Your task to perform on an android device: Go to eBay Image 0: 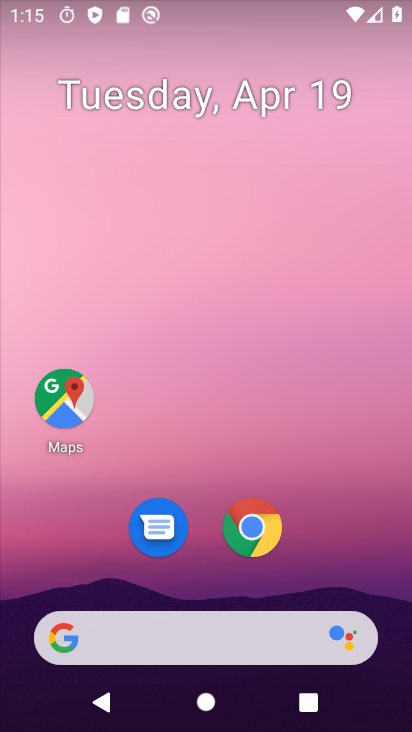
Step 0: click (254, 527)
Your task to perform on an android device: Go to eBay Image 1: 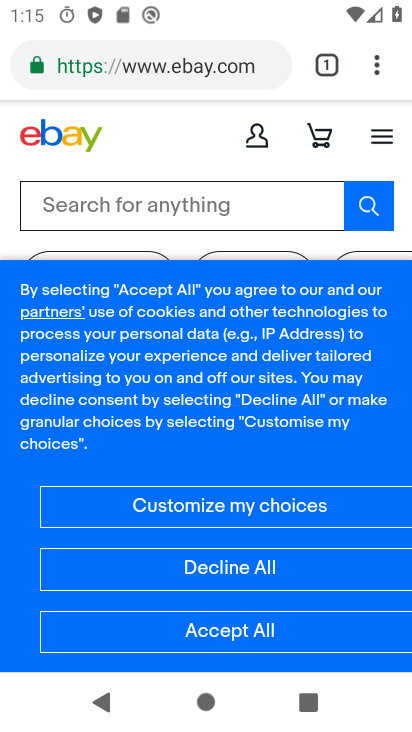
Step 1: click (376, 73)
Your task to perform on an android device: Go to eBay Image 2: 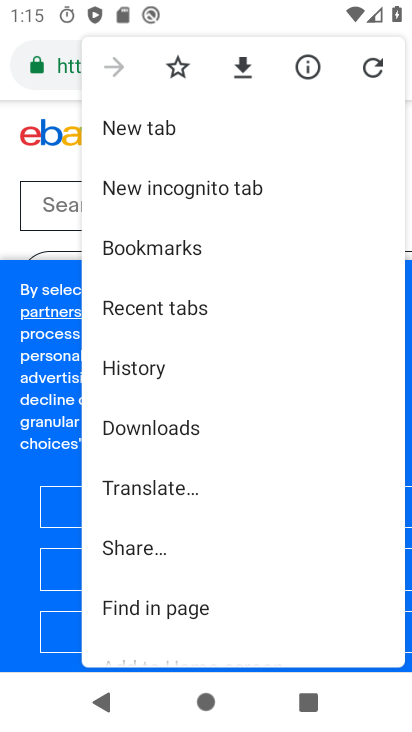
Step 2: click (375, 63)
Your task to perform on an android device: Go to eBay Image 3: 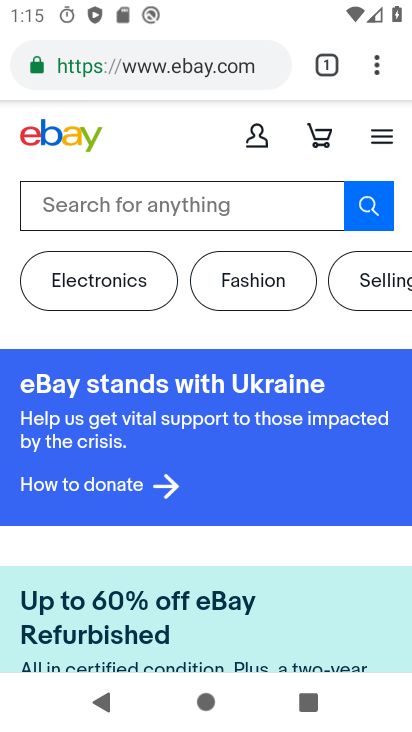
Step 3: task complete